Your task to perform on an android device: Open Android settings Image 0: 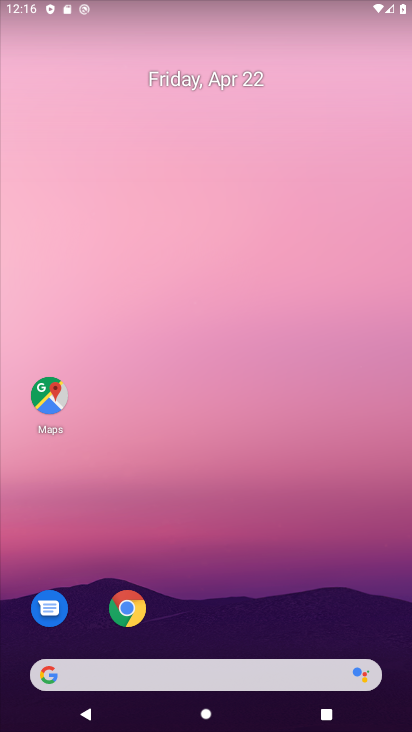
Step 0: drag from (301, 588) to (247, 18)
Your task to perform on an android device: Open Android settings Image 1: 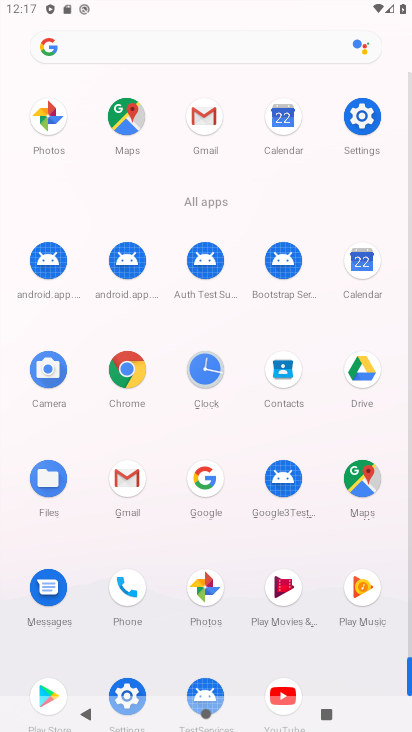
Step 1: click (361, 128)
Your task to perform on an android device: Open Android settings Image 2: 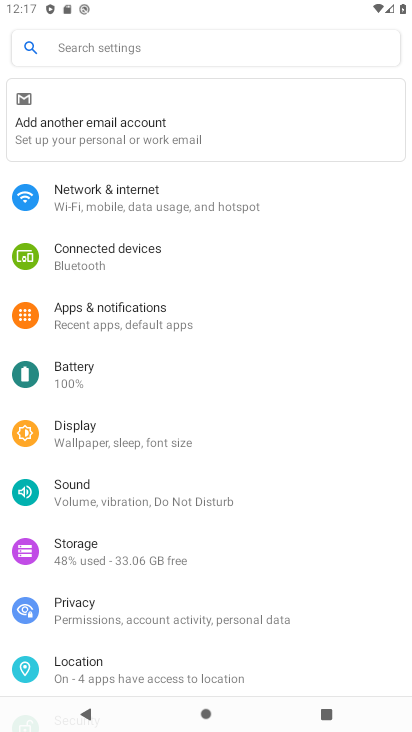
Step 2: task complete